Your task to perform on an android device: Open battery settings Image 0: 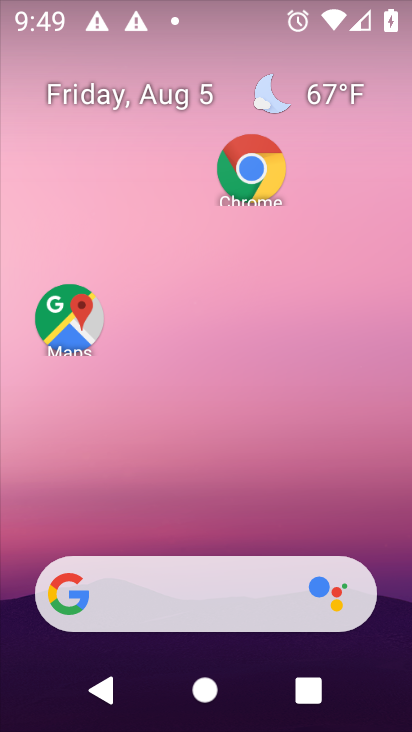
Step 0: drag from (205, 535) to (151, 154)
Your task to perform on an android device: Open battery settings Image 1: 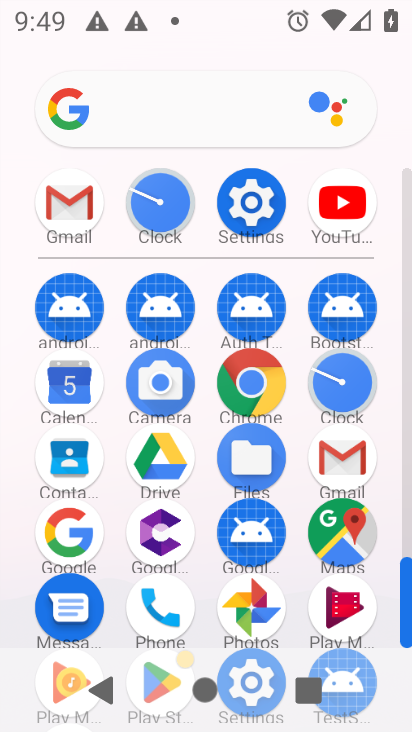
Step 1: click (236, 191)
Your task to perform on an android device: Open battery settings Image 2: 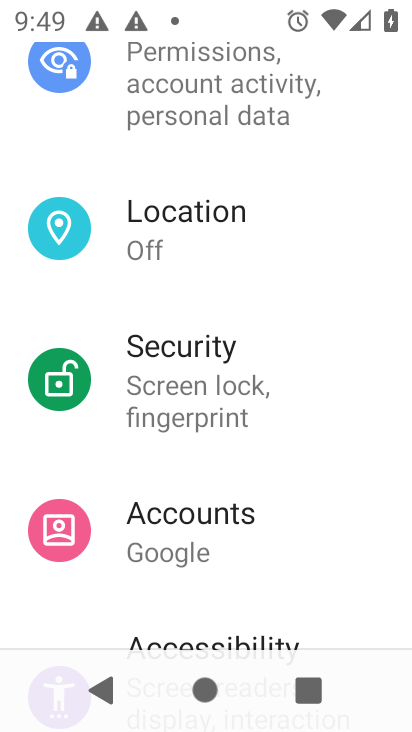
Step 2: drag from (278, 218) to (278, 562)
Your task to perform on an android device: Open battery settings Image 3: 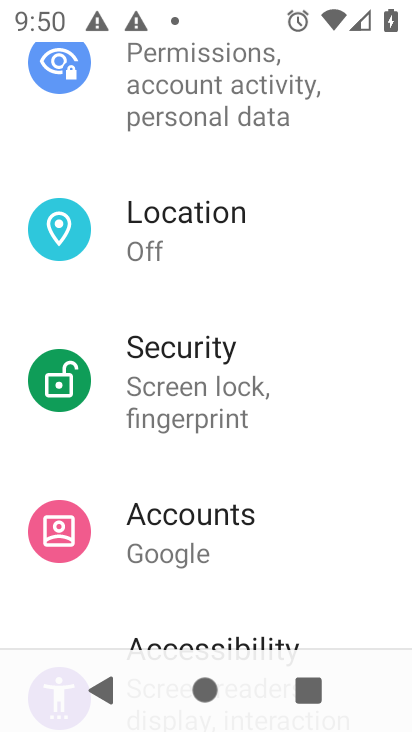
Step 3: drag from (231, 138) to (223, 440)
Your task to perform on an android device: Open battery settings Image 4: 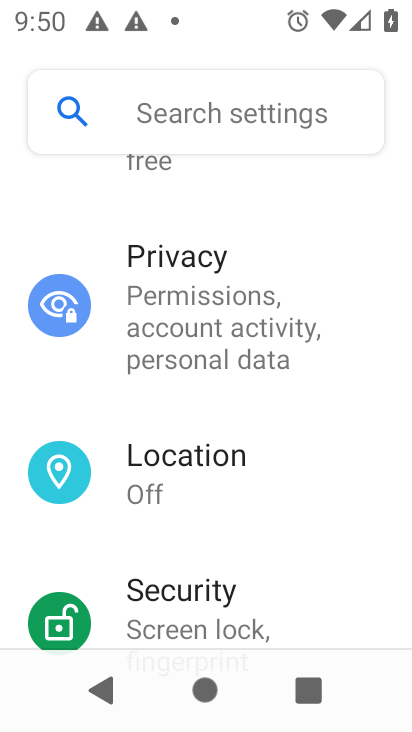
Step 4: drag from (175, 209) to (175, 436)
Your task to perform on an android device: Open battery settings Image 5: 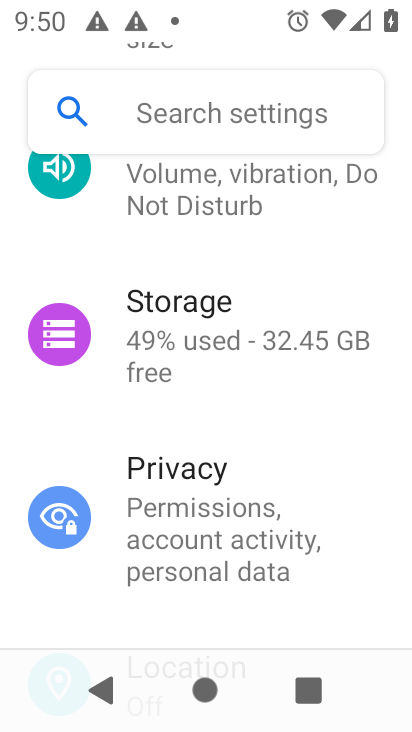
Step 5: drag from (189, 253) to (226, 582)
Your task to perform on an android device: Open battery settings Image 6: 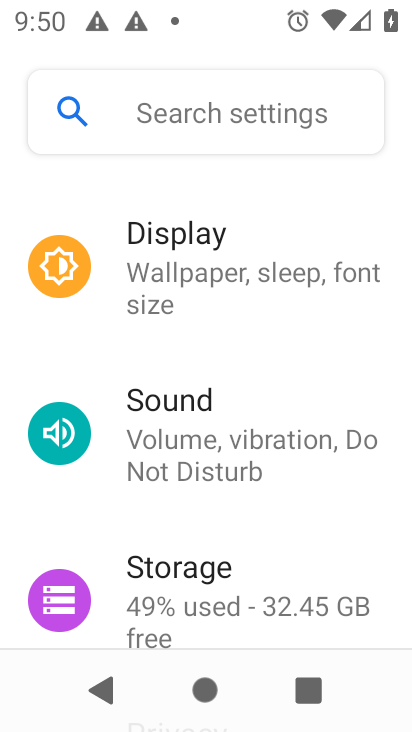
Step 6: drag from (191, 322) to (212, 519)
Your task to perform on an android device: Open battery settings Image 7: 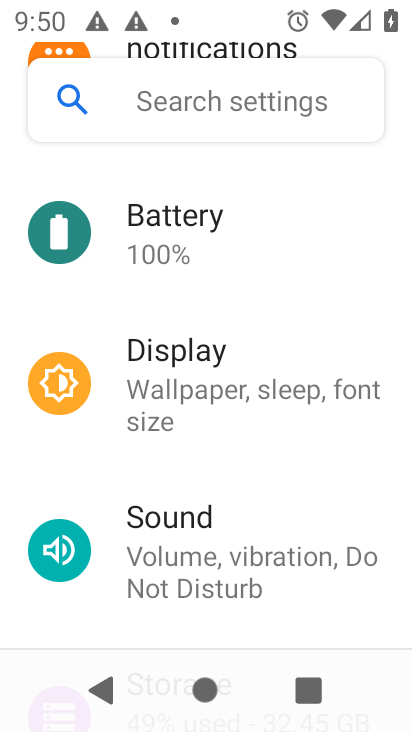
Step 7: click (160, 246)
Your task to perform on an android device: Open battery settings Image 8: 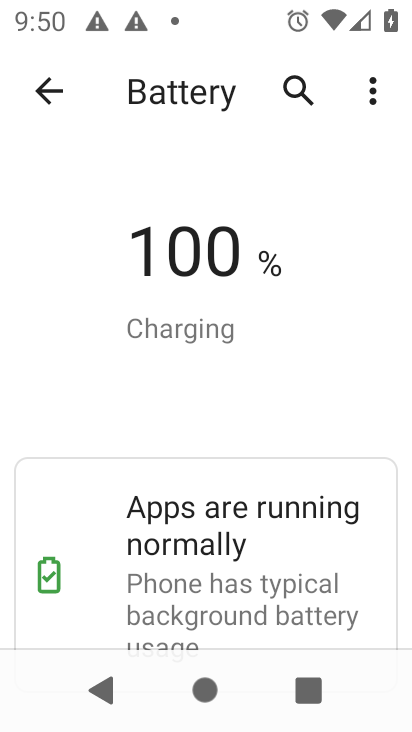
Step 8: task complete